Your task to perform on an android device: turn on sleep mode Image 0: 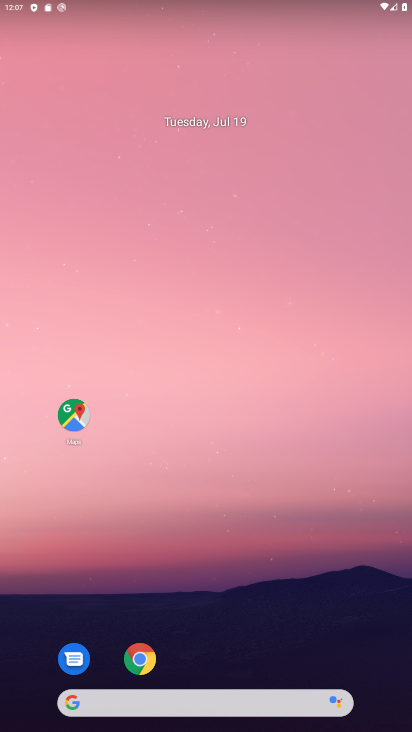
Step 0: drag from (168, 702) to (197, 182)
Your task to perform on an android device: turn on sleep mode Image 1: 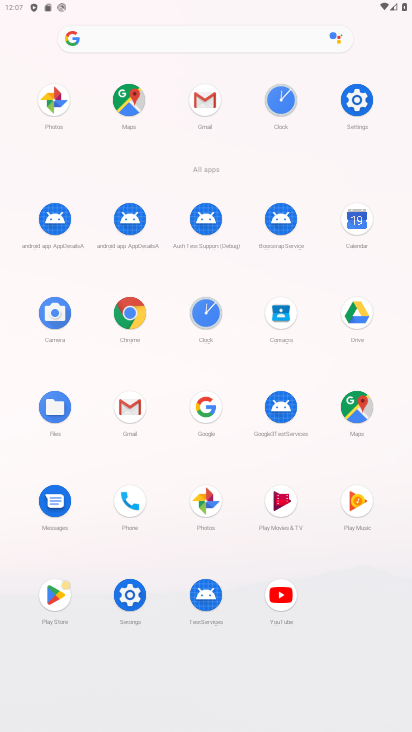
Step 1: click (356, 100)
Your task to perform on an android device: turn on sleep mode Image 2: 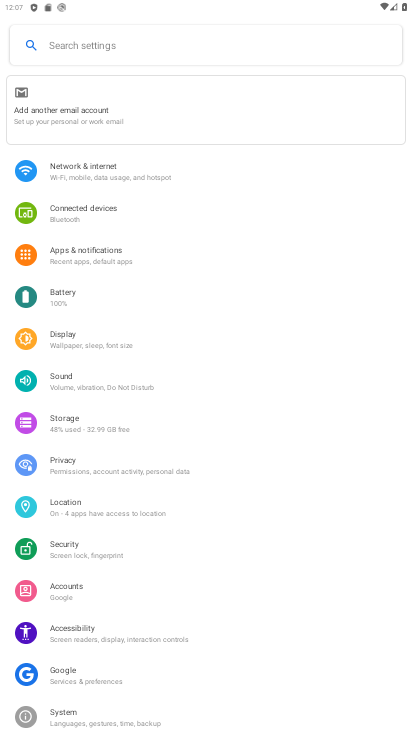
Step 2: click (107, 253)
Your task to perform on an android device: turn on sleep mode Image 3: 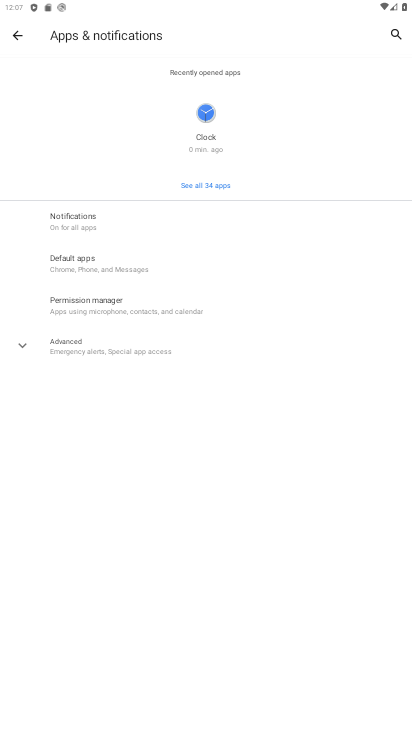
Step 3: press back button
Your task to perform on an android device: turn on sleep mode Image 4: 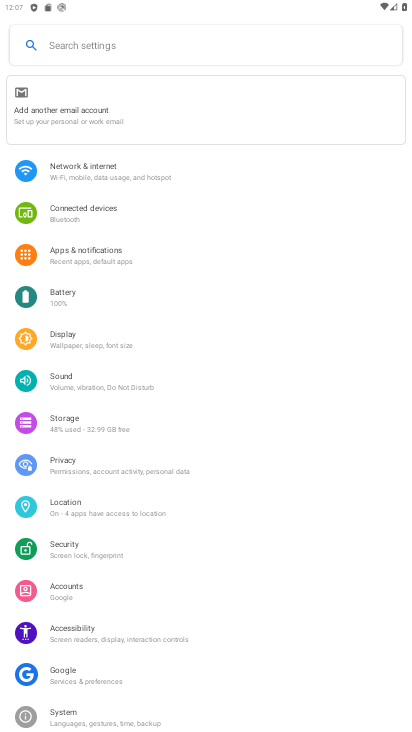
Step 4: click (97, 348)
Your task to perform on an android device: turn on sleep mode Image 5: 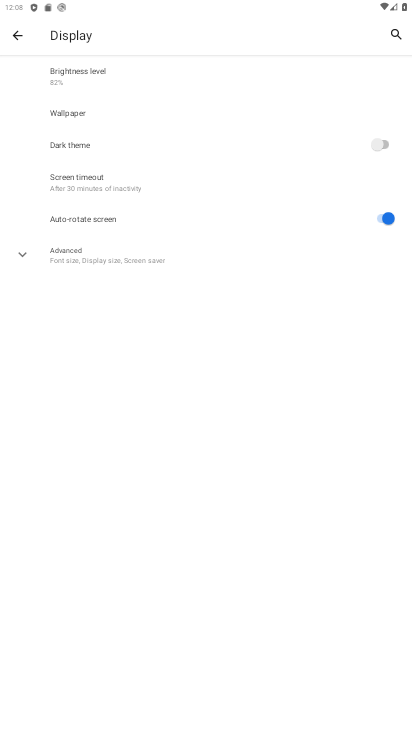
Step 5: click (79, 253)
Your task to perform on an android device: turn on sleep mode Image 6: 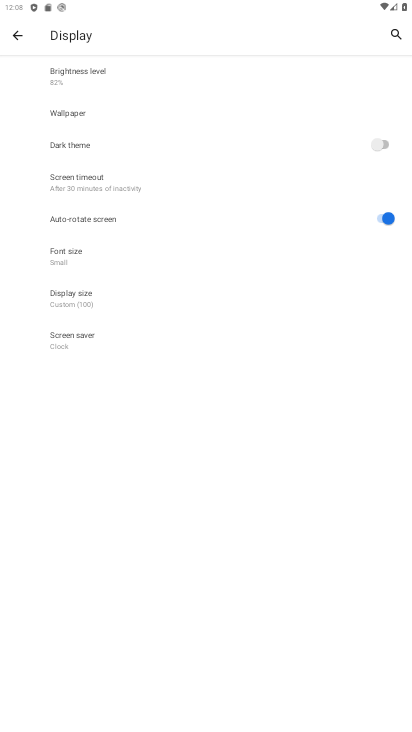
Step 6: click (78, 291)
Your task to perform on an android device: turn on sleep mode Image 7: 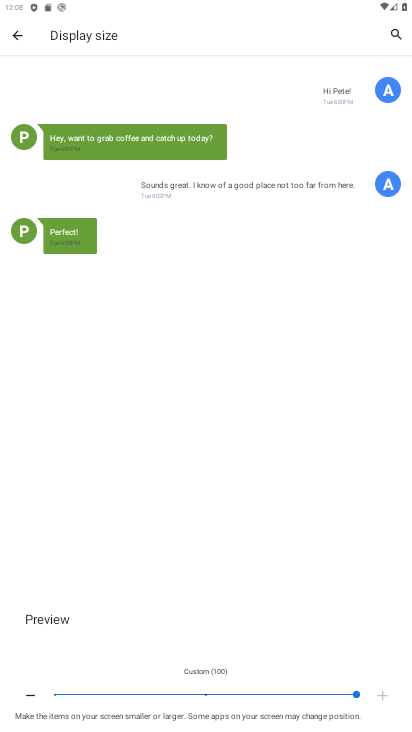
Step 7: press back button
Your task to perform on an android device: turn on sleep mode Image 8: 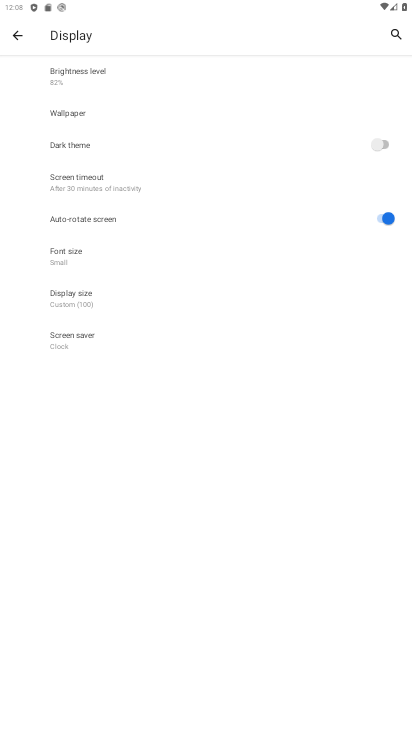
Step 8: click (89, 331)
Your task to perform on an android device: turn on sleep mode Image 9: 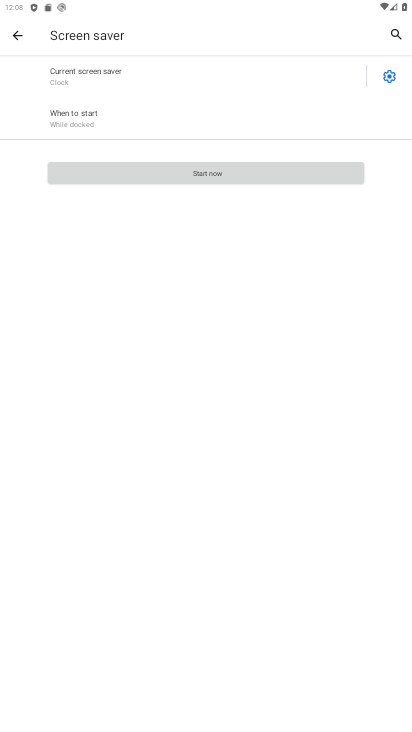
Step 9: click (392, 76)
Your task to perform on an android device: turn on sleep mode Image 10: 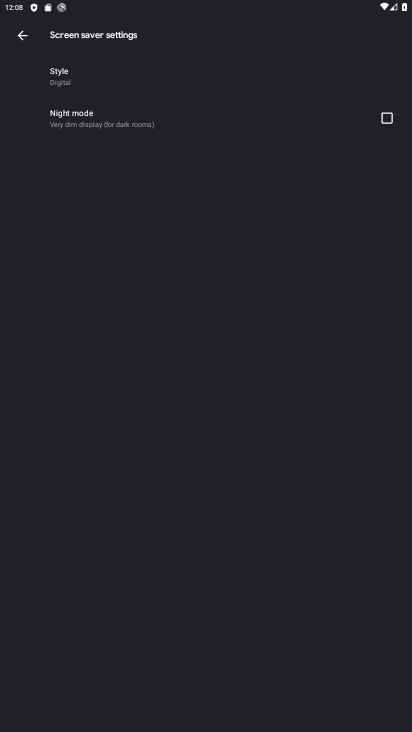
Step 10: task complete